Your task to perform on an android device: Search for seafood restaurants on Google Maps Image 0: 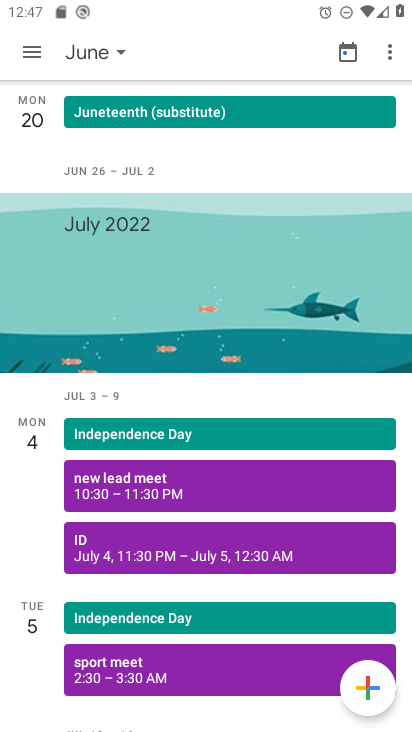
Step 0: press home button
Your task to perform on an android device: Search for seafood restaurants on Google Maps Image 1: 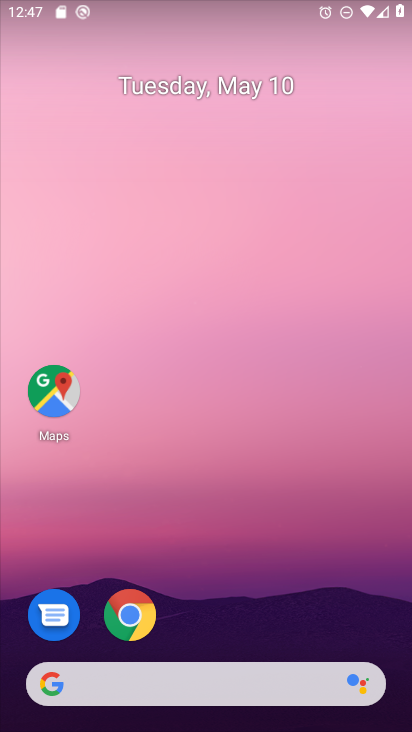
Step 1: drag from (238, 707) to (308, 203)
Your task to perform on an android device: Search for seafood restaurants on Google Maps Image 2: 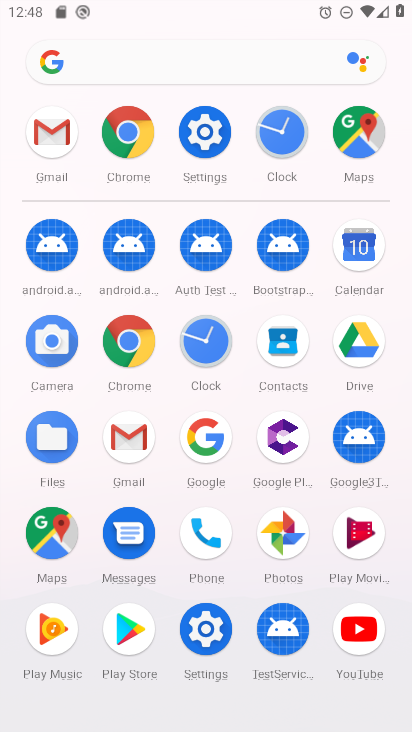
Step 2: click (367, 146)
Your task to perform on an android device: Search for seafood restaurants on Google Maps Image 3: 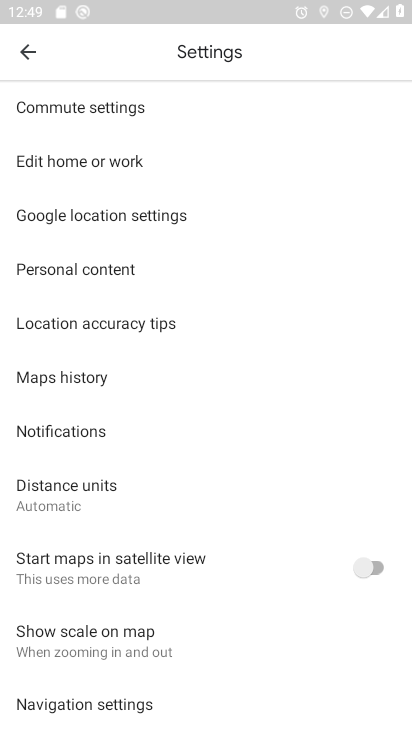
Step 3: click (32, 53)
Your task to perform on an android device: Search for seafood restaurants on Google Maps Image 4: 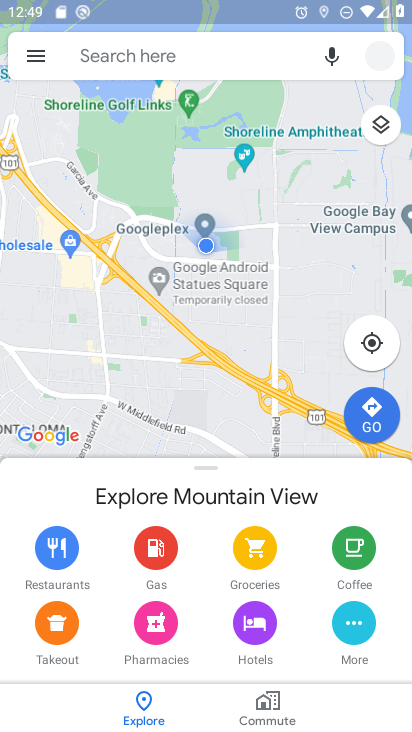
Step 4: click (16, 51)
Your task to perform on an android device: Search for seafood restaurants on Google Maps Image 5: 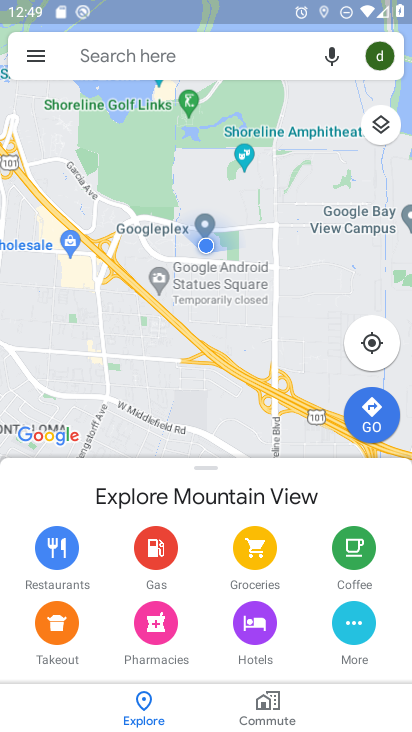
Step 5: click (153, 52)
Your task to perform on an android device: Search for seafood restaurants on Google Maps Image 6: 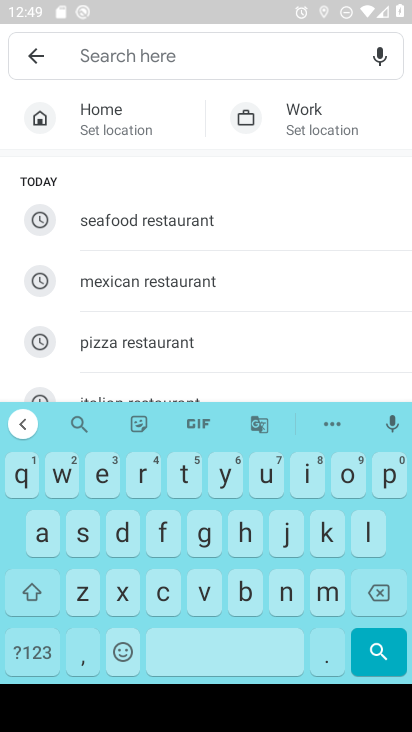
Step 6: click (151, 233)
Your task to perform on an android device: Search for seafood restaurants on Google Maps Image 7: 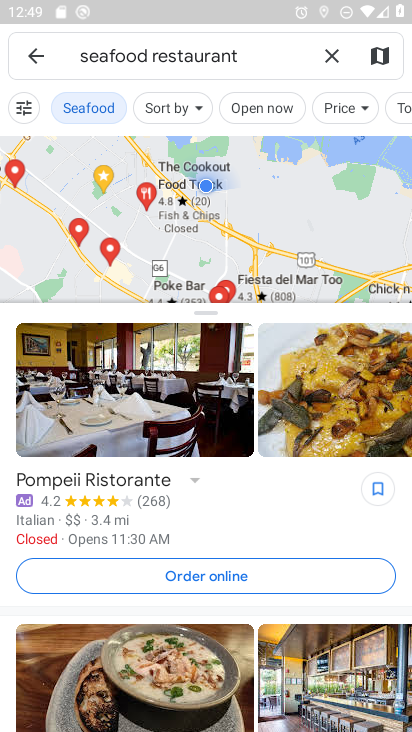
Step 7: task complete